Your task to perform on an android device: turn on wifi Image 0: 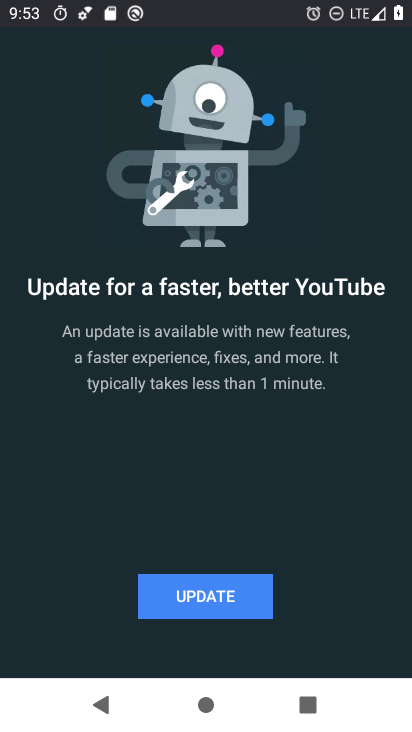
Step 0: press home button
Your task to perform on an android device: turn on wifi Image 1: 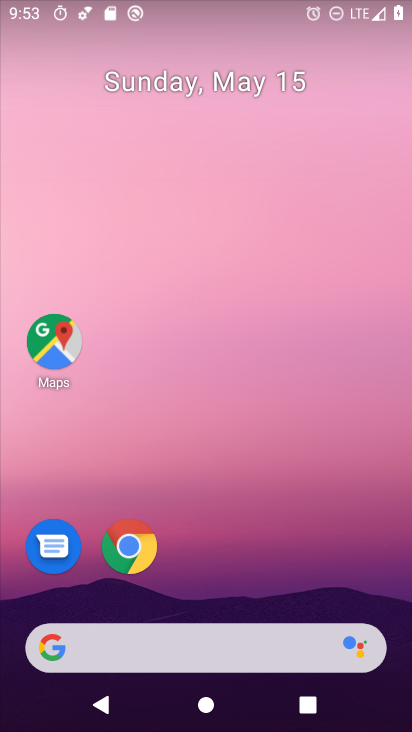
Step 1: drag from (252, 495) to (211, 38)
Your task to perform on an android device: turn on wifi Image 2: 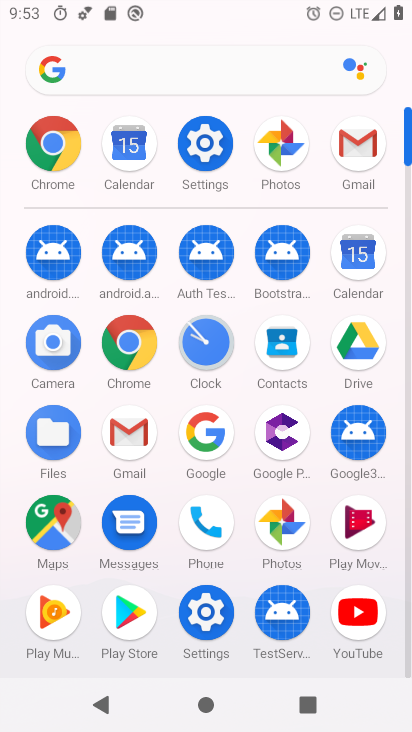
Step 2: click (203, 135)
Your task to perform on an android device: turn on wifi Image 3: 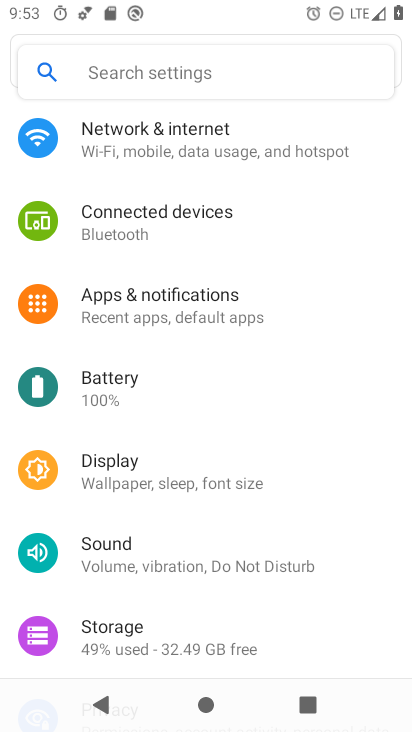
Step 3: drag from (214, 263) to (244, 435)
Your task to perform on an android device: turn on wifi Image 4: 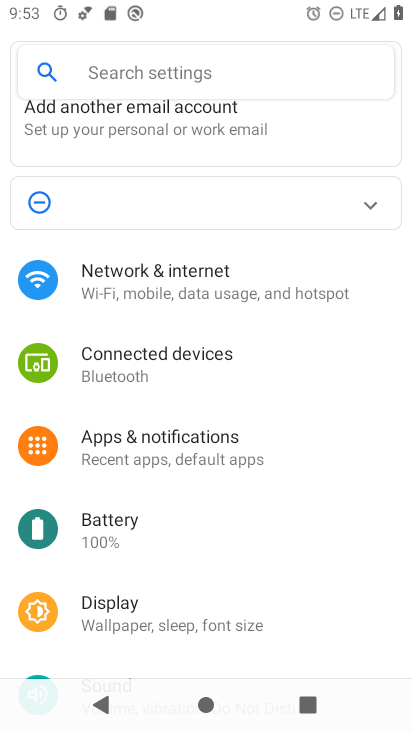
Step 4: click (248, 289)
Your task to perform on an android device: turn on wifi Image 5: 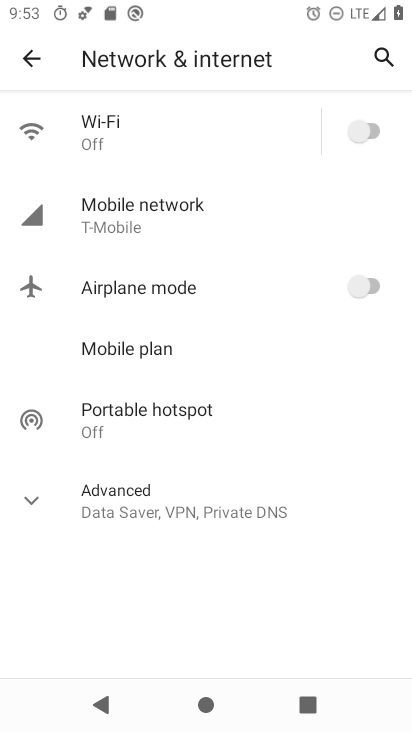
Step 5: click (364, 124)
Your task to perform on an android device: turn on wifi Image 6: 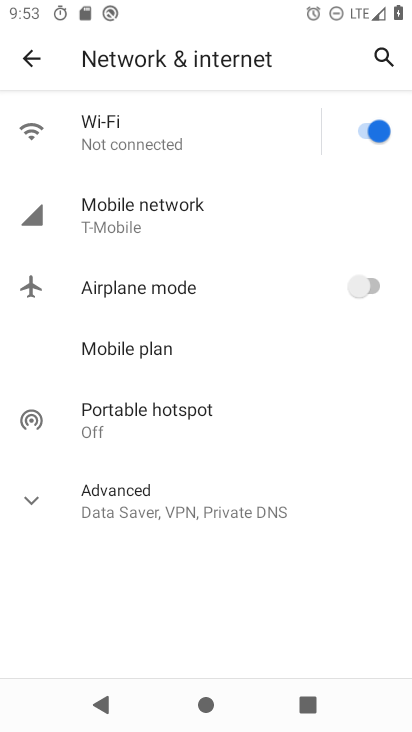
Step 6: task complete